Your task to perform on an android device: Open settings on Google Maps Image 0: 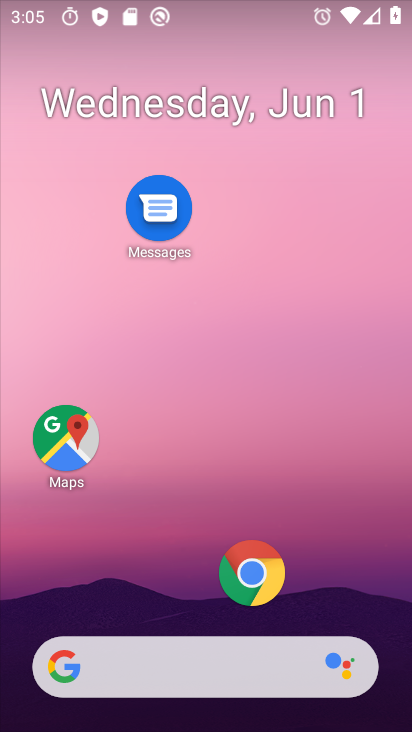
Step 0: drag from (177, 603) to (201, 371)
Your task to perform on an android device: Open settings on Google Maps Image 1: 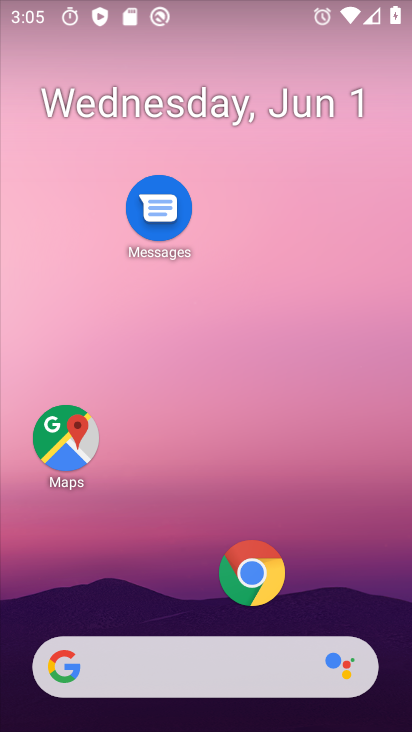
Step 1: click (68, 438)
Your task to perform on an android device: Open settings on Google Maps Image 2: 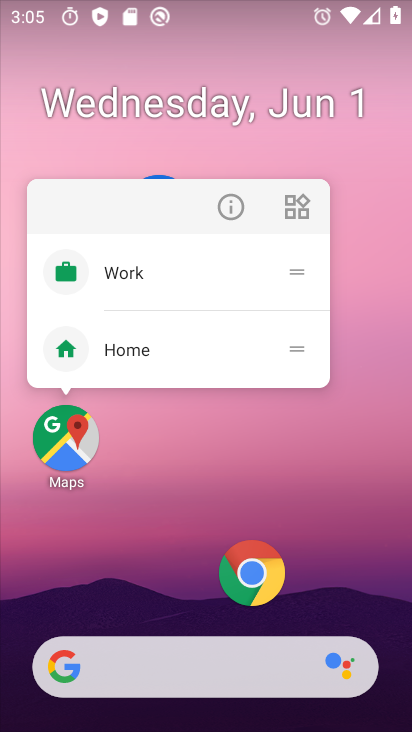
Step 2: click (68, 438)
Your task to perform on an android device: Open settings on Google Maps Image 3: 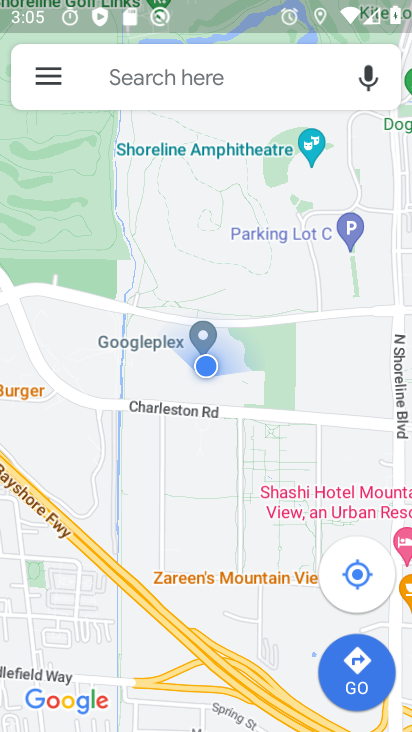
Step 3: task complete